Your task to perform on an android device: Go to Android settings Image 0: 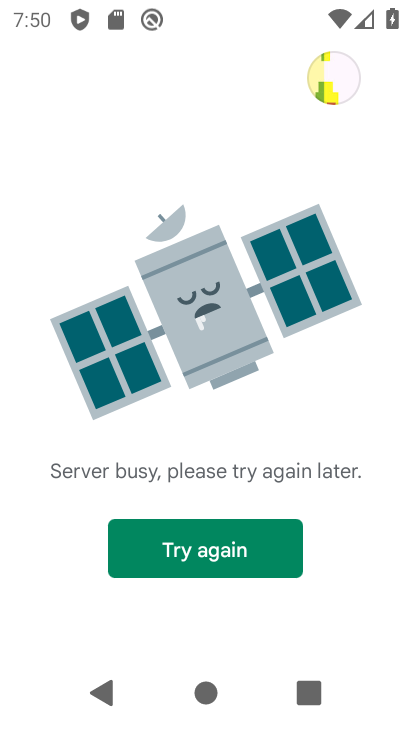
Step 0: press back button
Your task to perform on an android device: Go to Android settings Image 1: 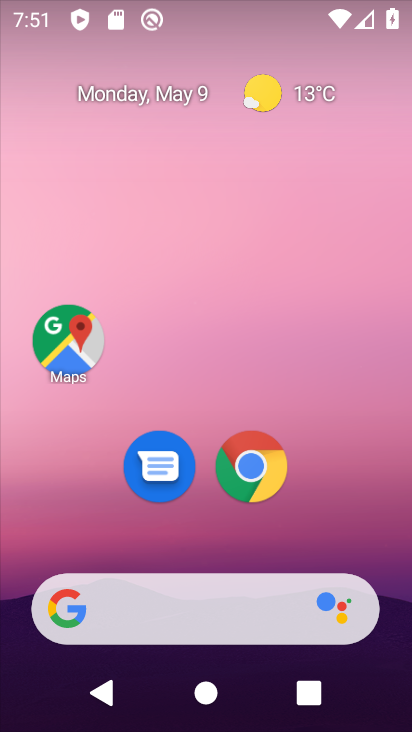
Step 1: drag from (357, 521) to (332, 19)
Your task to perform on an android device: Go to Android settings Image 2: 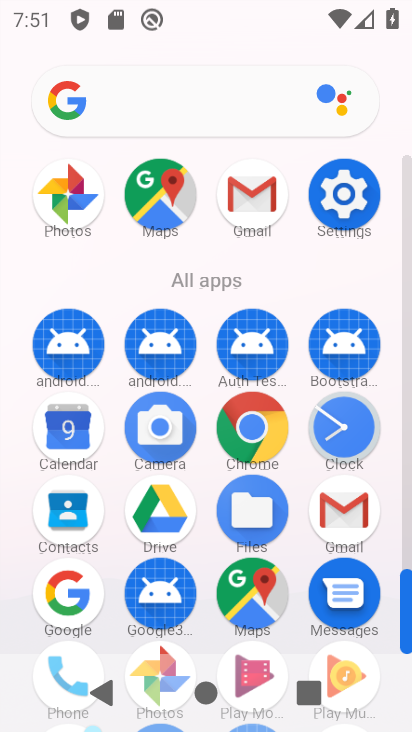
Step 2: click (345, 195)
Your task to perform on an android device: Go to Android settings Image 3: 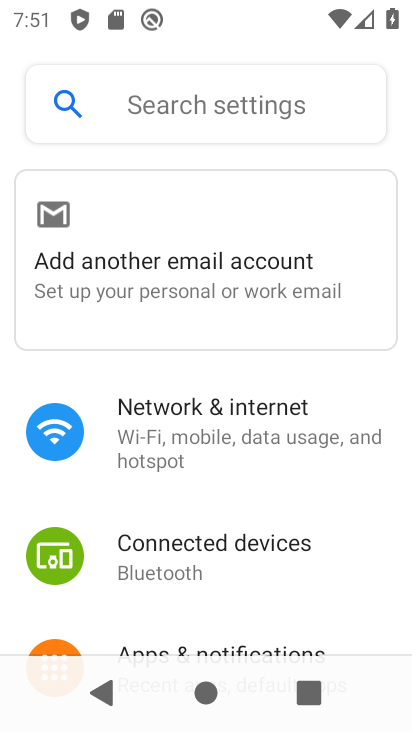
Step 3: task complete